Your task to perform on an android device: create a new album in the google photos Image 0: 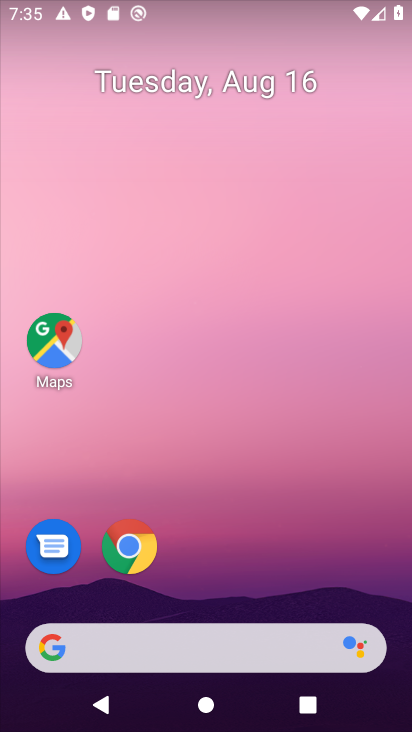
Step 0: drag from (258, 405) to (239, 0)
Your task to perform on an android device: create a new album in the google photos Image 1: 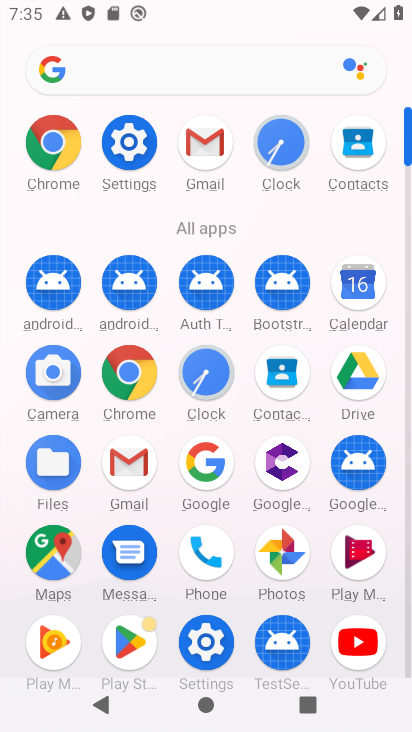
Step 1: click (282, 541)
Your task to perform on an android device: create a new album in the google photos Image 2: 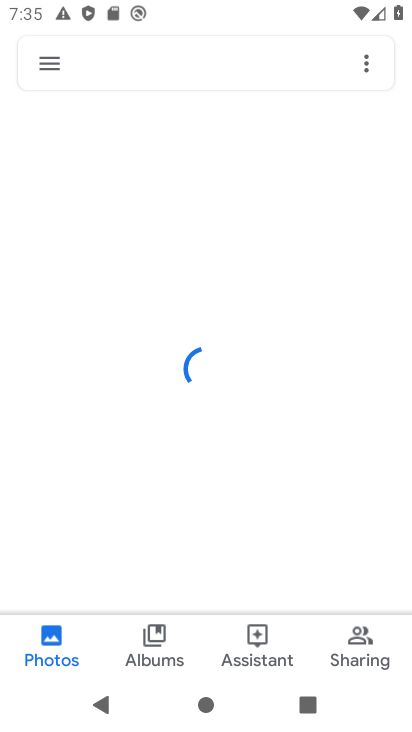
Step 2: click (160, 638)
Your task to perform on an android device: create a new album in the google photos Image 3: 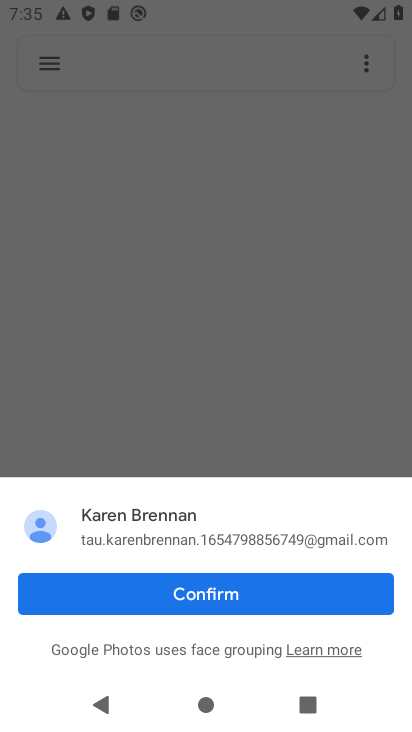
Step 3: click (195, 595)
Your task to perform on an android device: create a new album in the google photos Image 4: 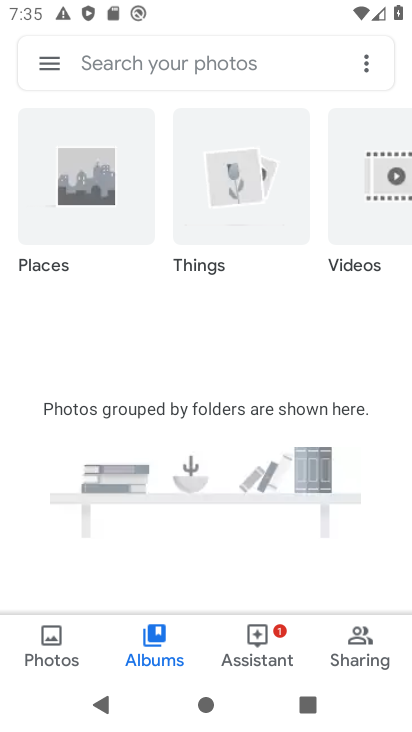
Step 4: drag from (238, 474) to (213, 223)
Your task to perform on an android device: create a new album in the google photos Image 5: 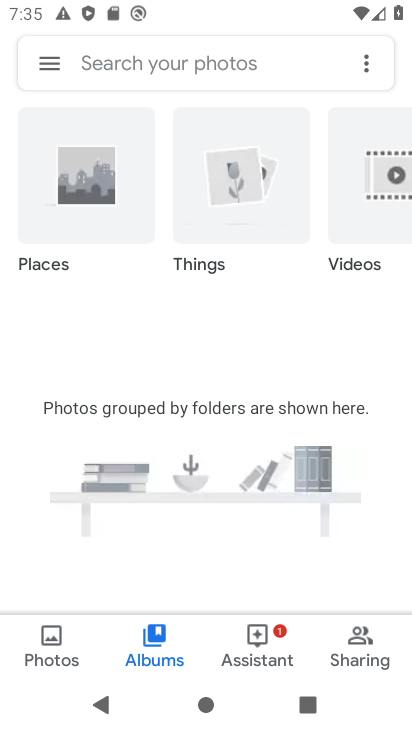
Step 5: click (226, 535)
Your task to perform on an android device: create a new album in the google photos Image 6: 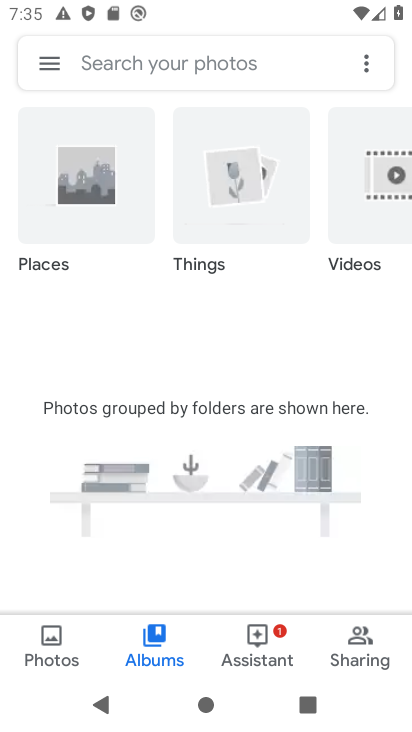
Step 6: drag from (222, 480) to (226, 329)
Your task to perform on an android device: create a new album in the google photos Image 7: 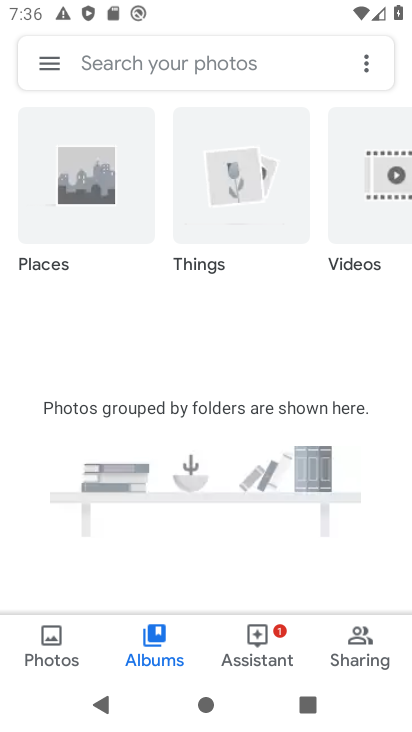
Step 7: click (364, 65)
Your task to perform on an android device: create a new album in the google photos Image 8: 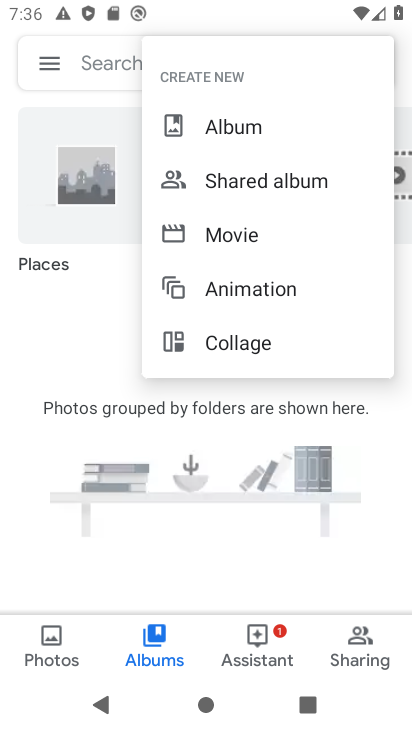
Step 8: click (290, 127)
Your task to perform on an android device: create a new album in the google photos Image 9: 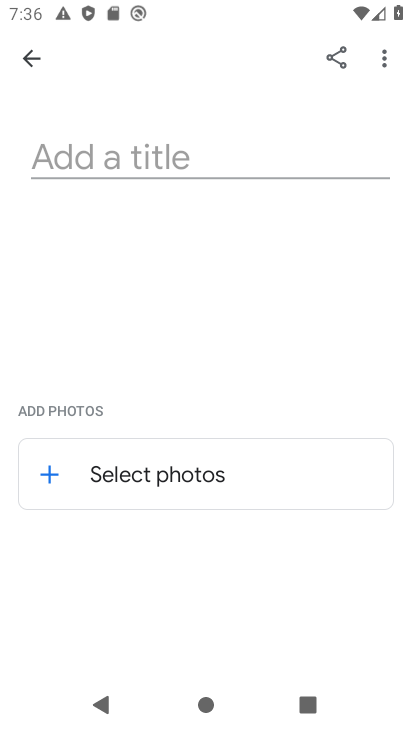
Step 9: click (266, 152)
Your task to perform on an android device: create a new album in the google photos Image 10: 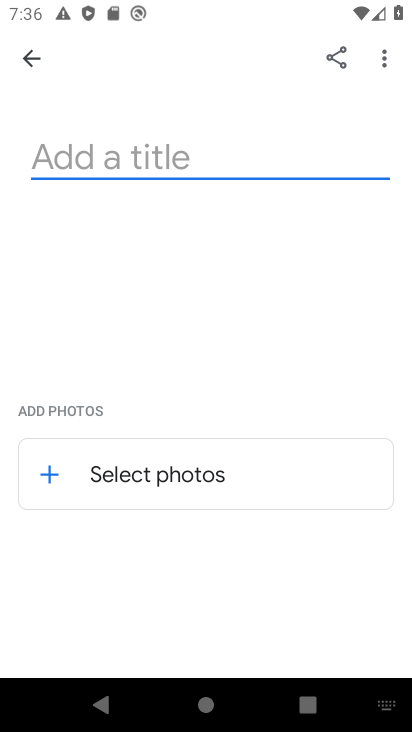
Step 10: type "Prayagraj"
Your task to perform on an android device: create a new album in the google photos Image 11: 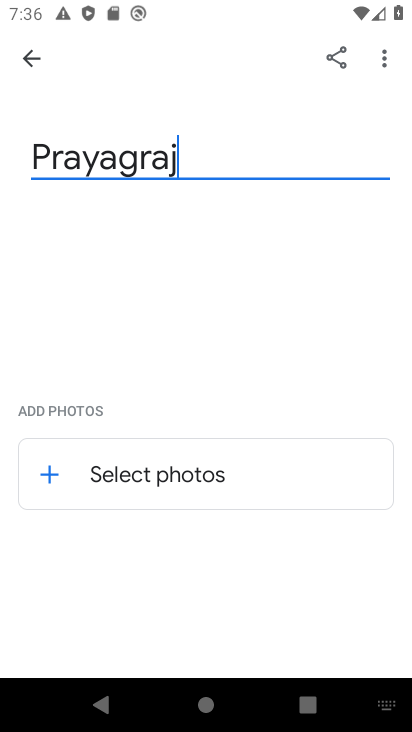
Step 11: click (52, 474)
Your task to perform on an android device: create a new album in the google photos Image 12: 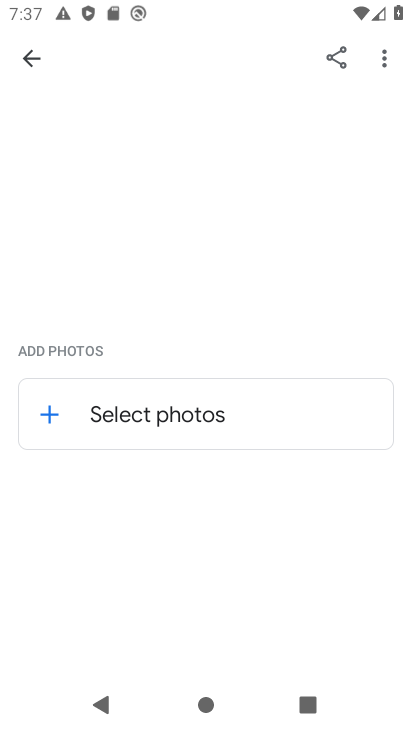
Step 12: click (47, 411)
Your task to perform on an android device: create a new album in the google photos Image 13: 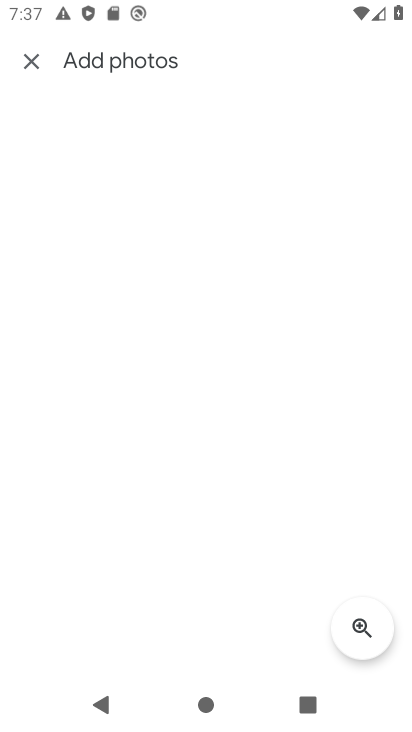
Step 13: task complete